Your task to perform on an android device: Open calendar and show me the second week of next month Image 0: 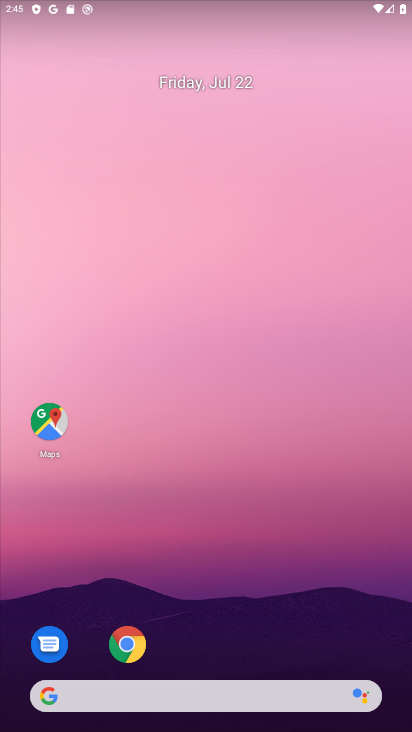
Step 0: drag from (272, 600) to (213, 127)
Your task to perform on an android device: Open calendar and show me the second week of next month Image 1: 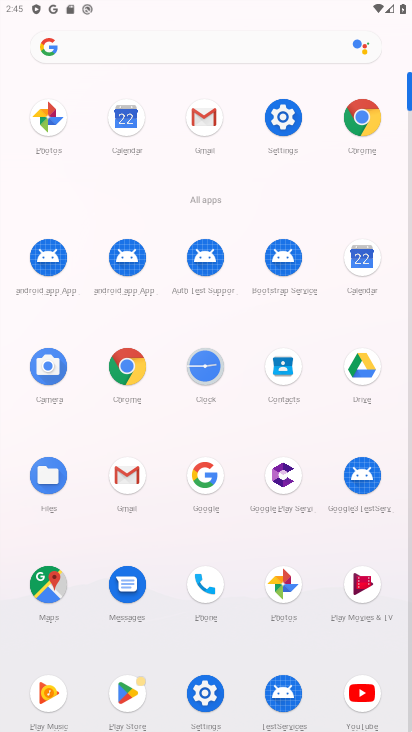
Step 1: click (357, 255)
Your task to perform on an android device: Open calendar and show me the second week of next month Image 2: 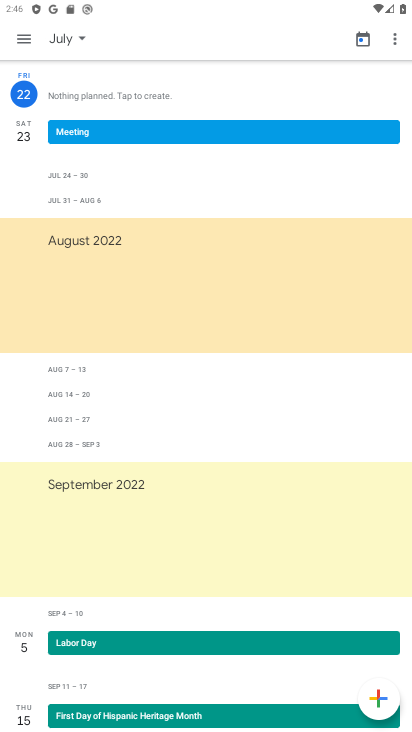
Step 2: task complete